Your task to perform on an android device: Go to Amazon Image 0: 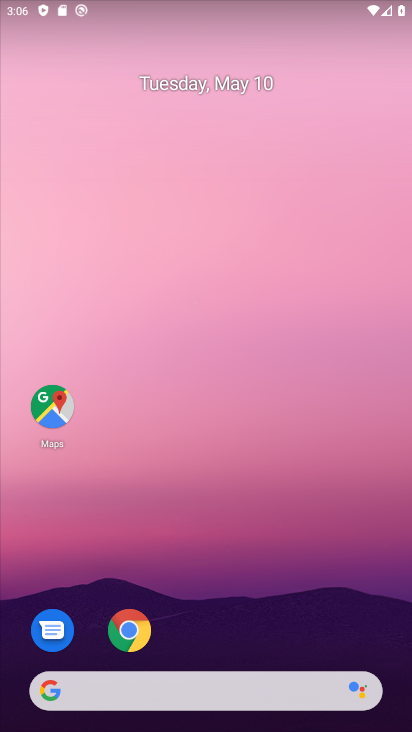
Step 0: click (134, 625)
Your task to perform on an android device: Go to Amazon Image 1: 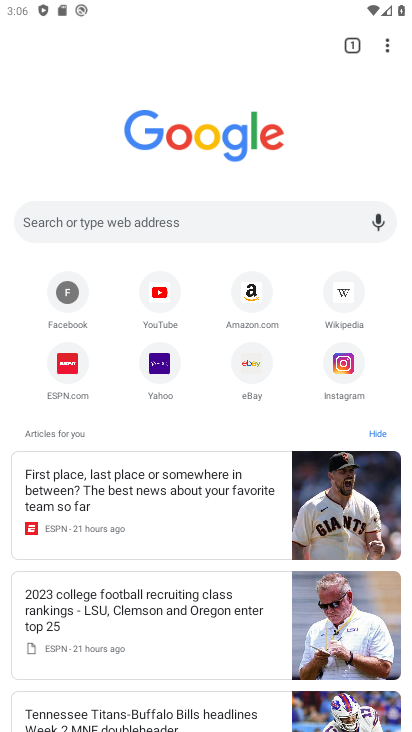
Step 1: click (254, 293)
Your task to perform on an android device: Go to Amazon Image 2: 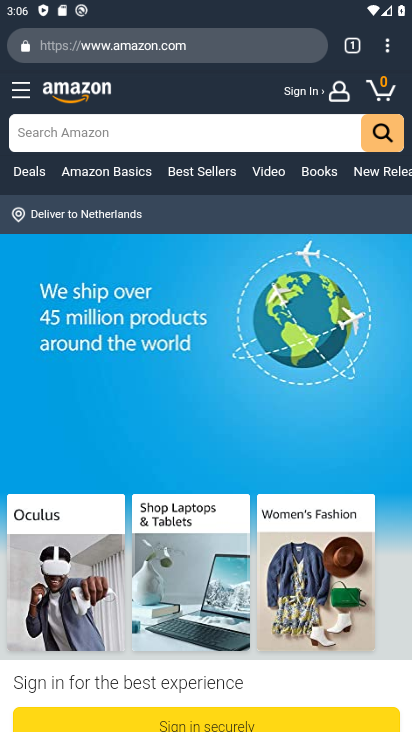
Step 2: task complete